Your task to perform on an android device: toggle airplane mode Image 0: 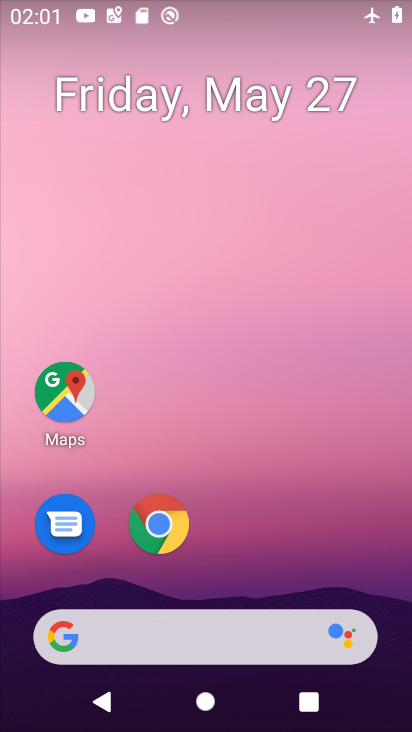
Step 0: drag from (250, 514) to (250, 10)
Your task to perform on an android device: toggle airplane mode Image 1: 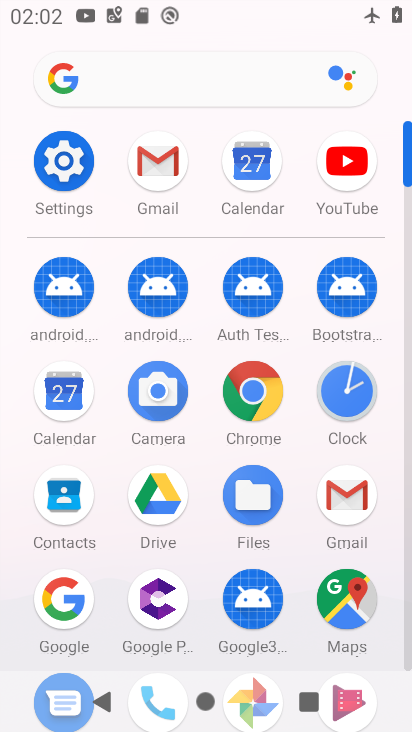
Step 1: click (73, 156)
Your task to perform on an android device: toggle airplane mode Image 2: 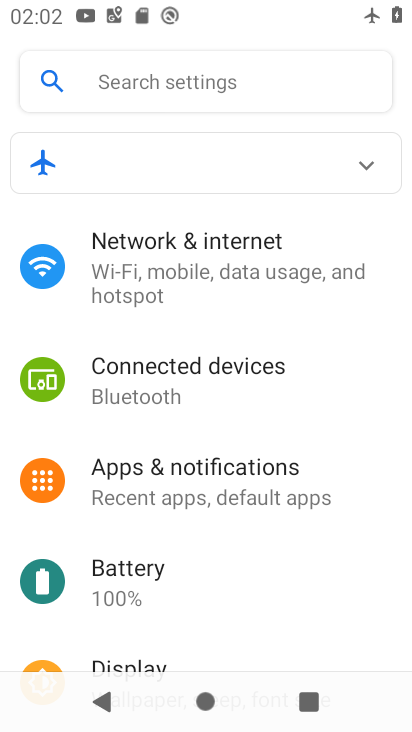
Step 2: click (160, 255)
Your task to perform on an android device: toggle airplane mode Image 3: 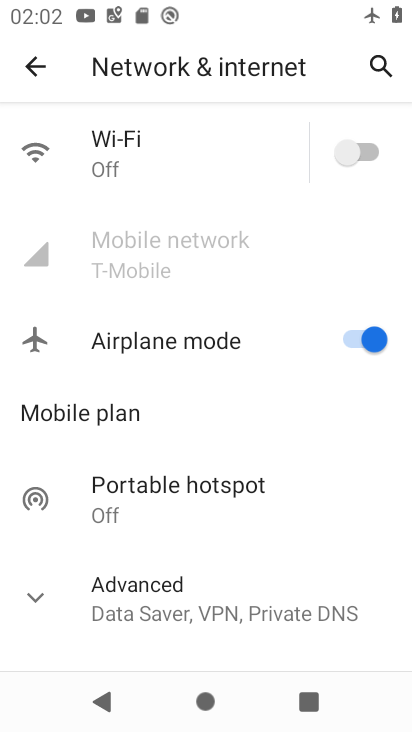
Step 3: click (352, 329)
Your task to perform on an android device: toggle airplane mode Image 4: 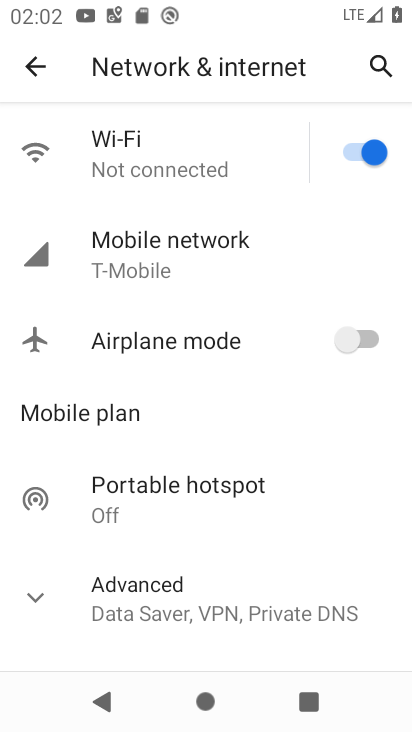
Step 4: task complete